Your task to perform on an android device: Clear the shopping cart on ebay. Add logitech g502 to the cart on ebay, then select checkout. Image 0: 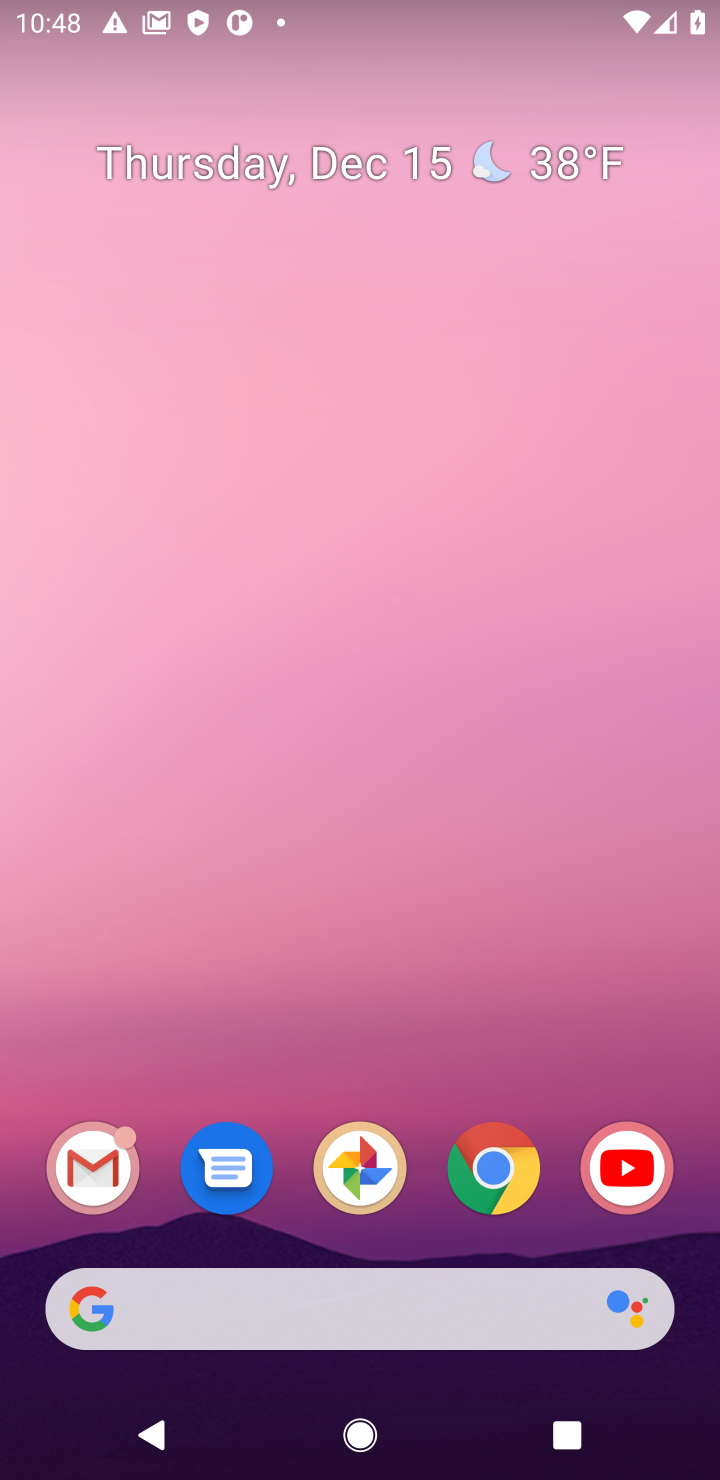
Step 0: click (491, 1177)
Your task to perform on an android device: Clear the shopping cart on ebay. Add logitech g502 to the cart on ebay, then select checkout. Image 1: 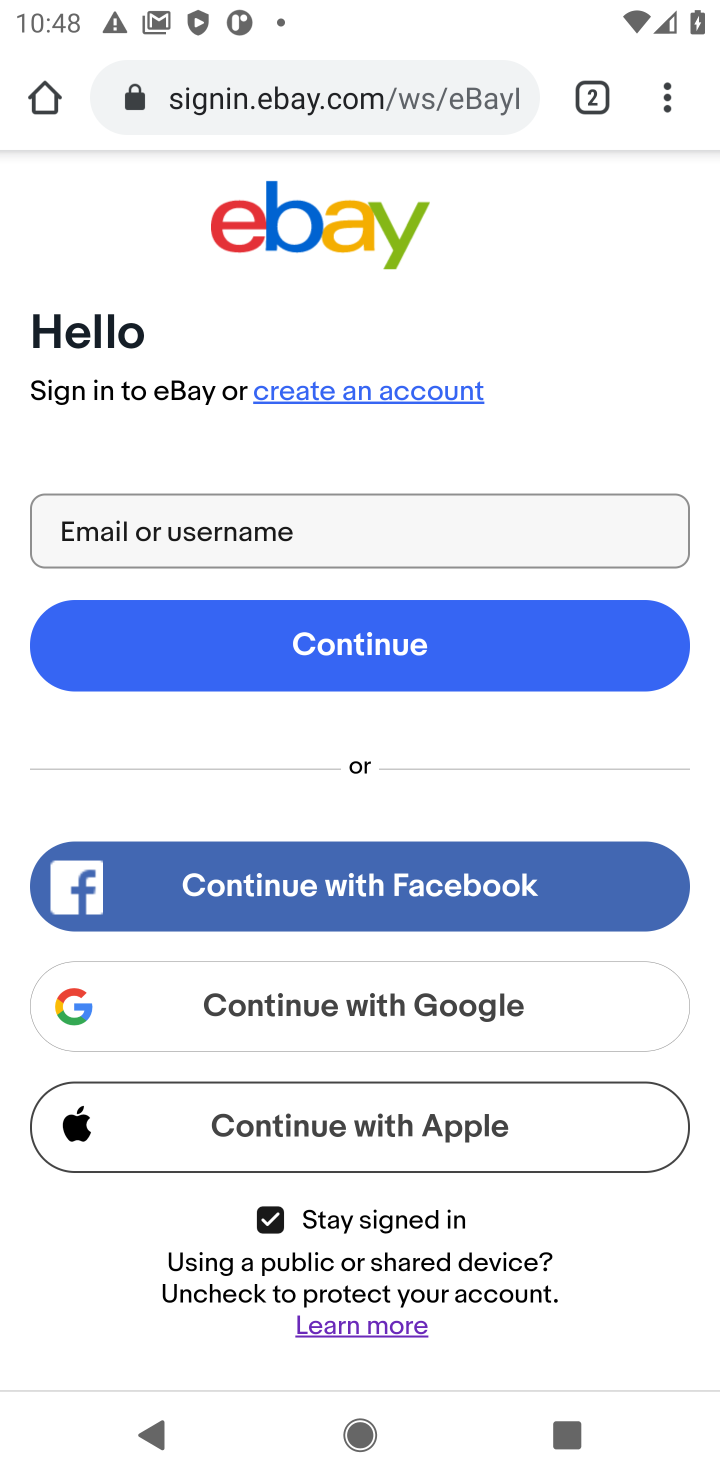
Step 1: click (346, 212)
Your task to perform on an android device: Clear the shopping cart on ebay. Add logitech g502 to the cart on ebay, then select checkout. Image 2: 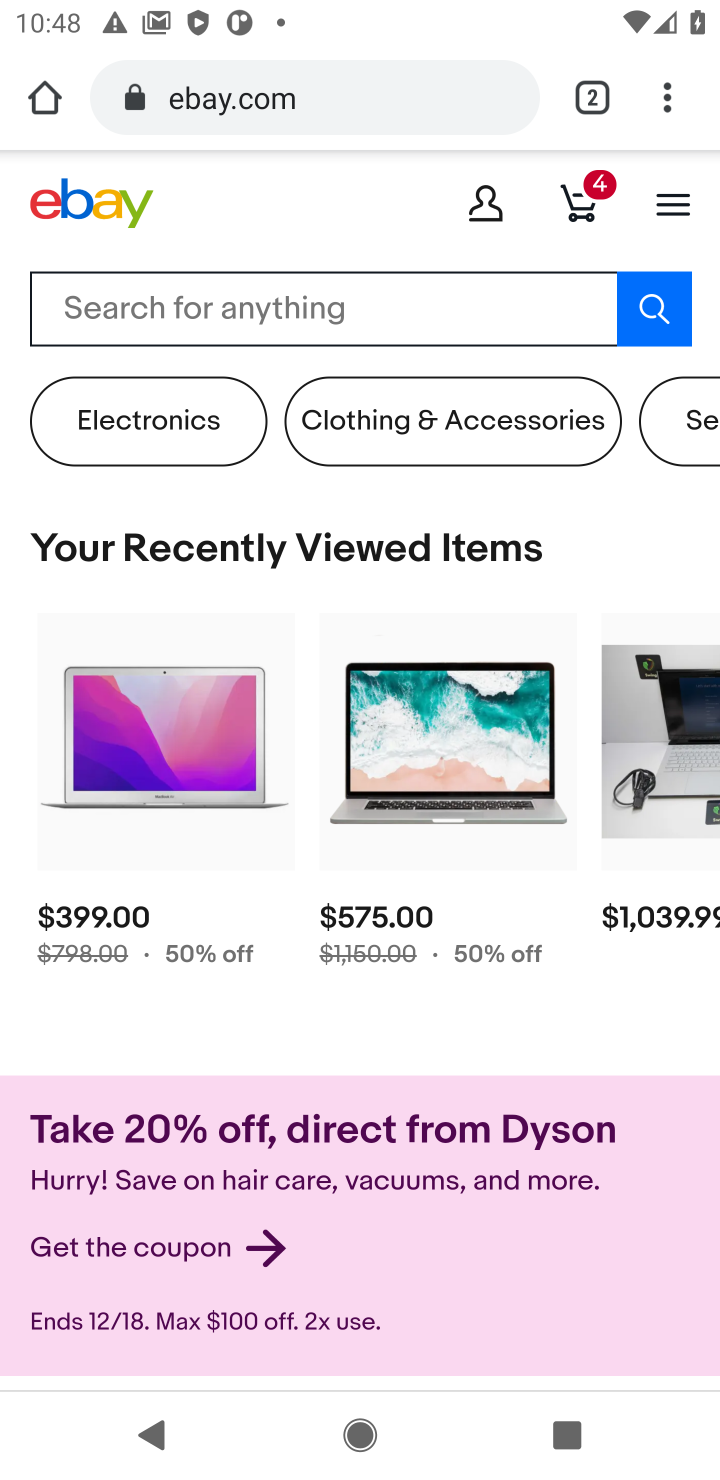
Step 2: click (582, 197)
Your task to perform on an android device: Clear the shopping cart on ebay. Add logitech g502 to the cart on ebay, then select checkout. Image 3: 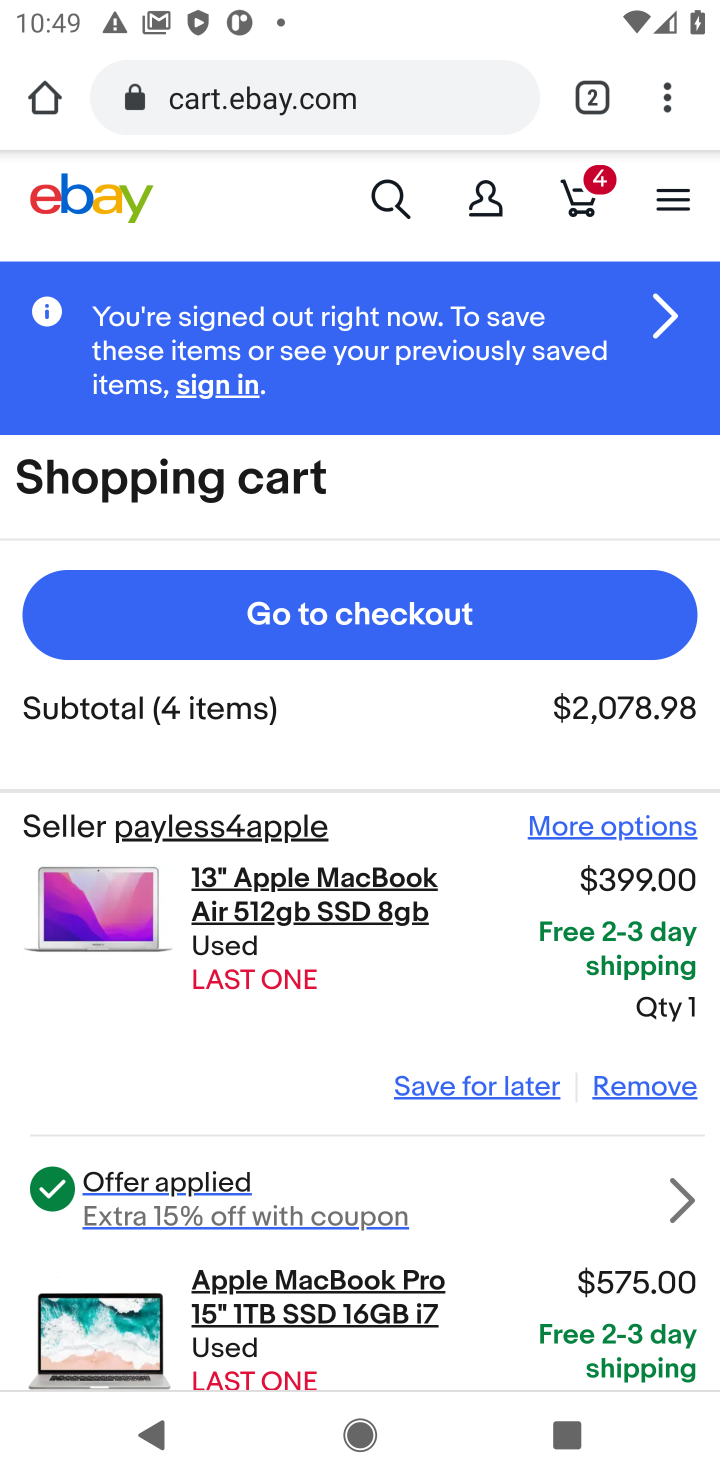
Step 3: click (632, 1088)
Your task to perform on an android device: Clear the shopping cart on ebay. Add logitech g502 to the cart on ebay, then select checkout. Image 4: 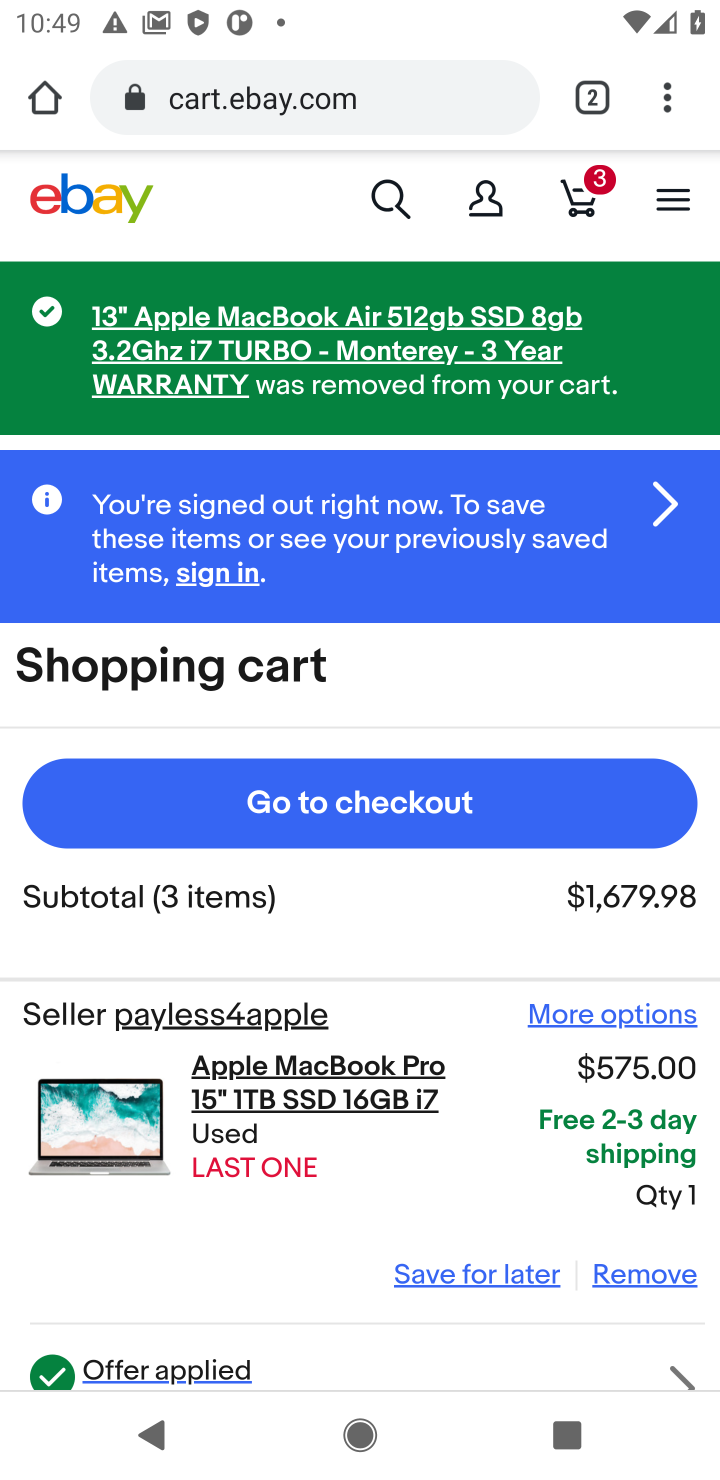
Step 4: click (639, 1270)
Your task to perform on an android device: Clear the shopping cart on ebay. Add logitech g502 to the cart on ebay, then select checkout. Image 5: 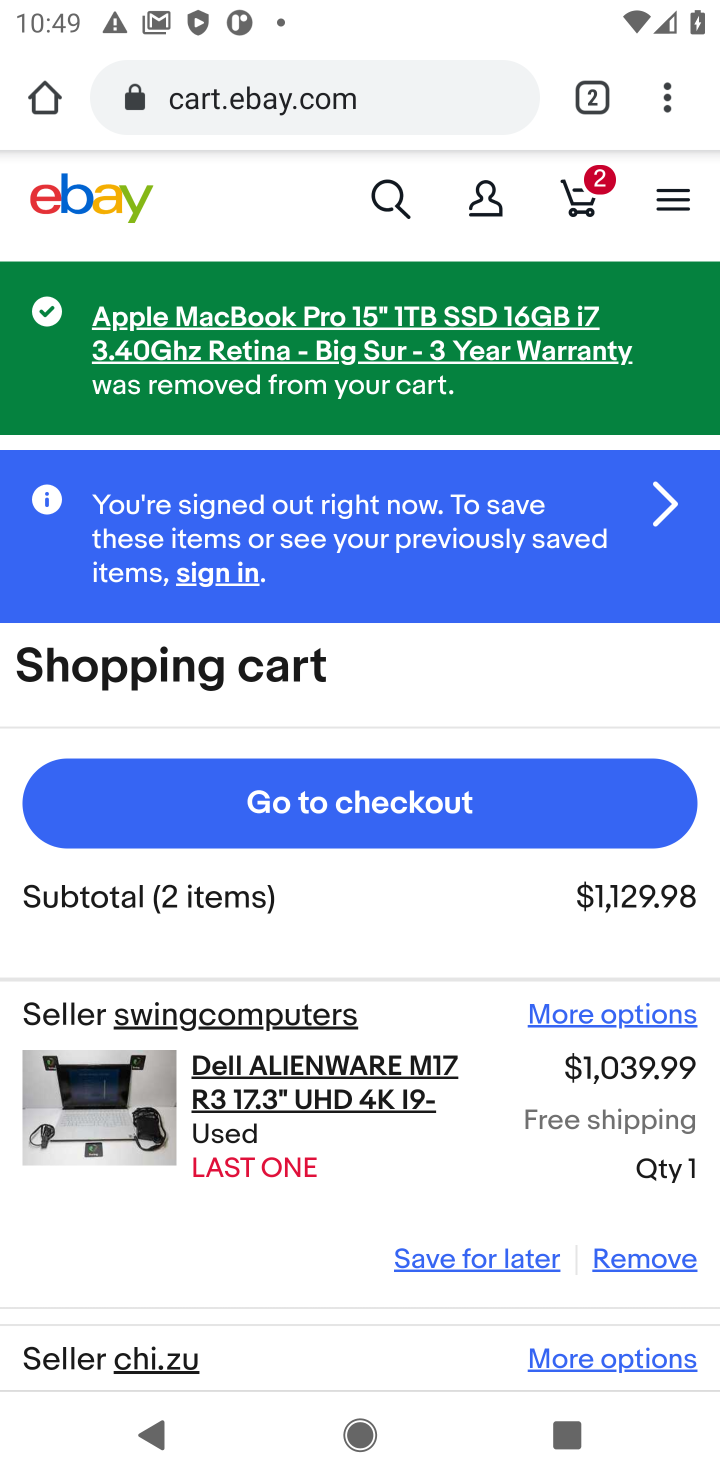
Step 5: click (639, 1270)
Your task to perform on an android device: Clear the shopping cart on ebay. Add logitech g502 to the cart on ebay, then select checkout. Image 6: 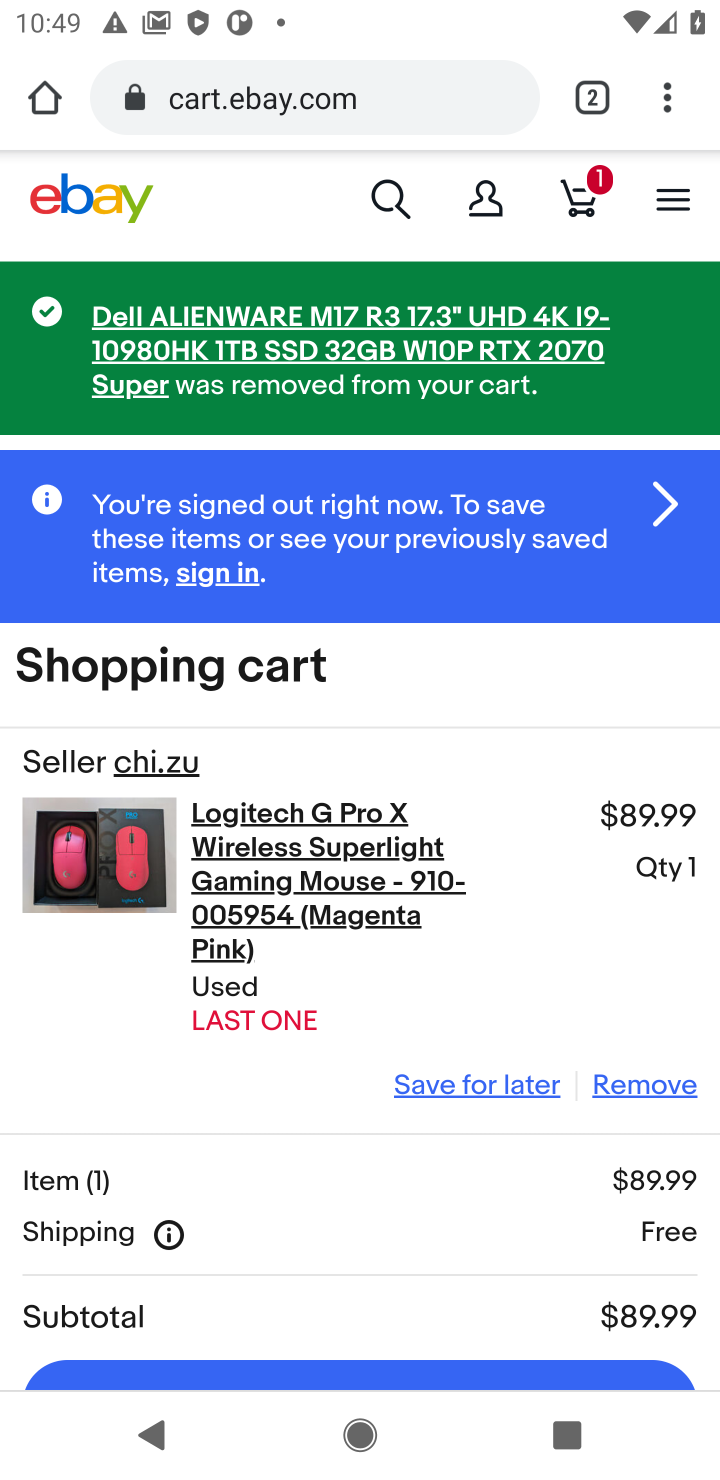
Step 6: click (640, 1088)
Your task to perform on an android device: Clear the shopping cart on ebay. Add logitech g502 to the cart on ebay, then select checkout. Image 7: 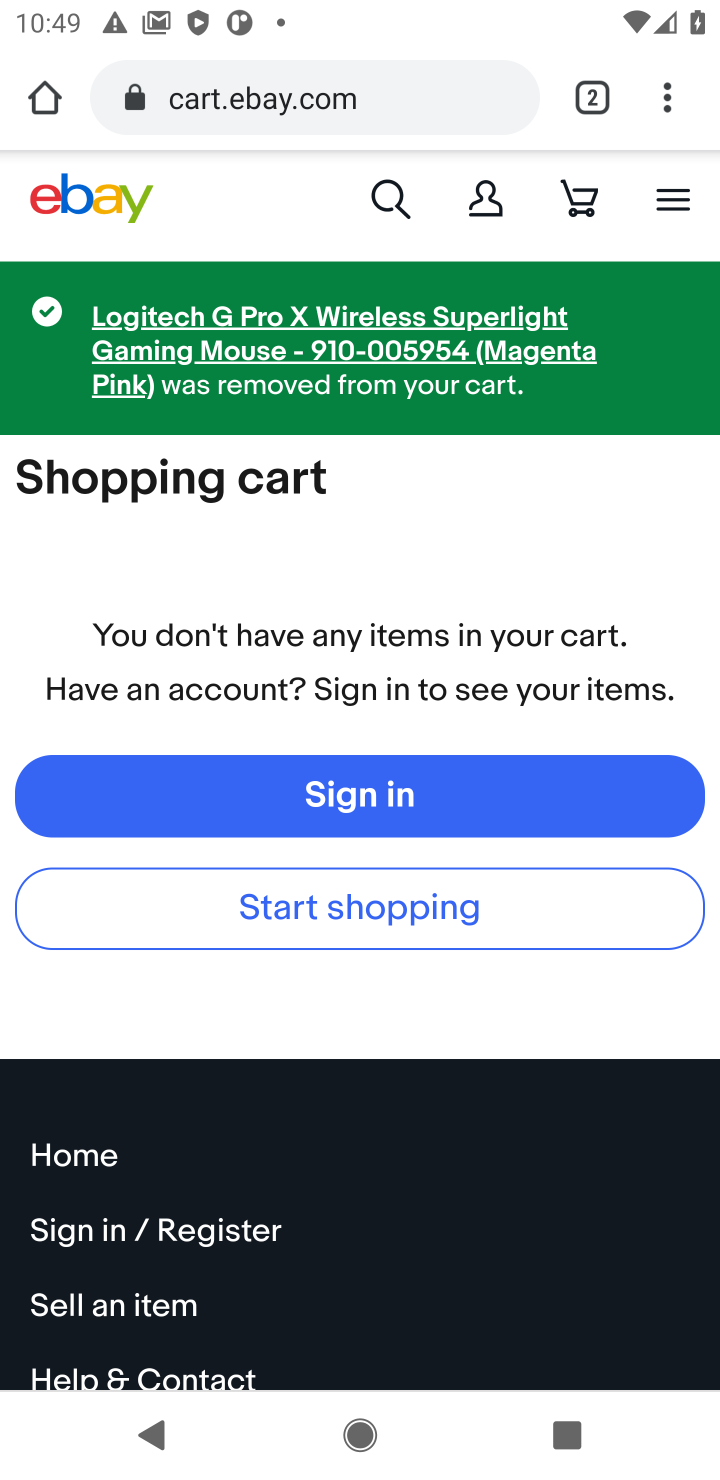
Step 7: click (383, 199)
Your task to perform on an android device: Clear the shopping cart on ebay. Add logitech g502 to the cart on ebay, then select checkout. Image 8: 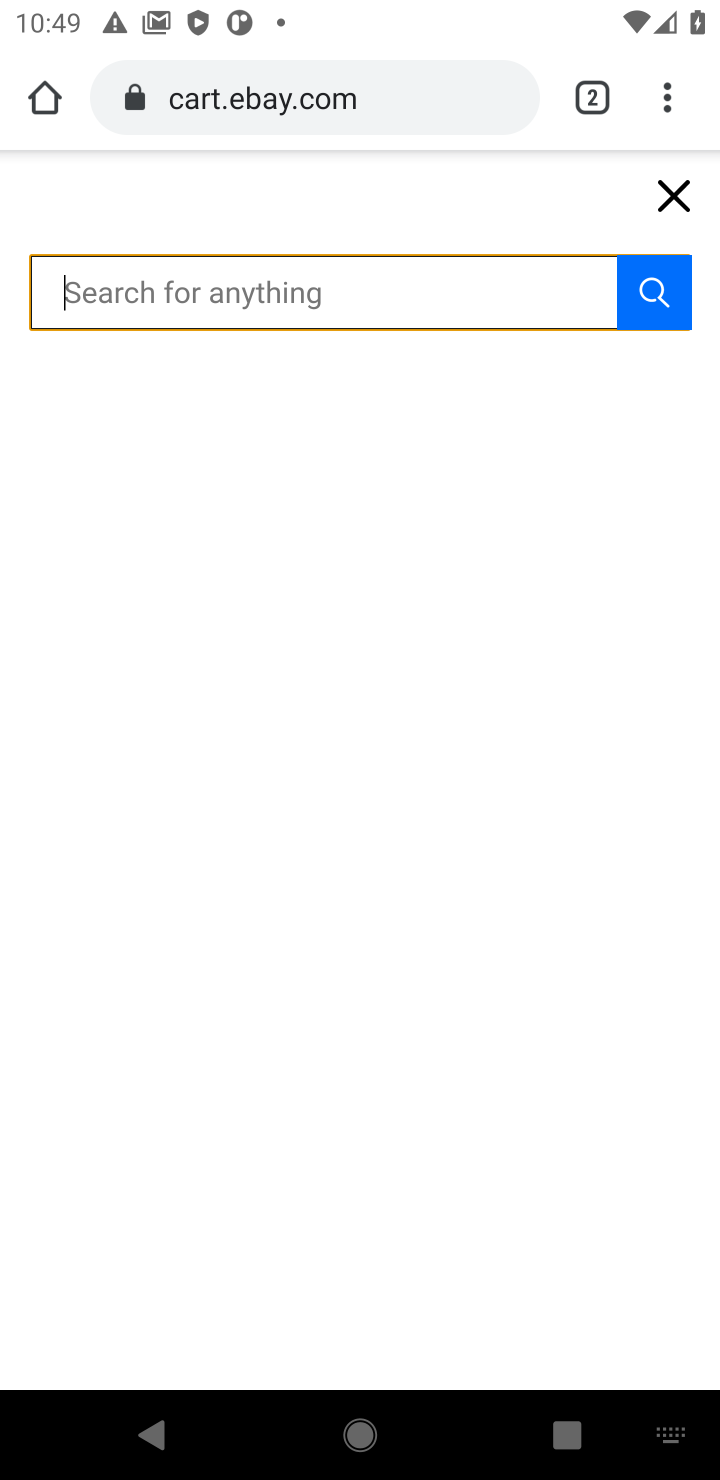
Step 8: type "logitech g502"
Your task to perform on an android device: Clear the shopping cart on ebay. Add logitech g502 to the cart on ebay, then select checkout. Image 9: 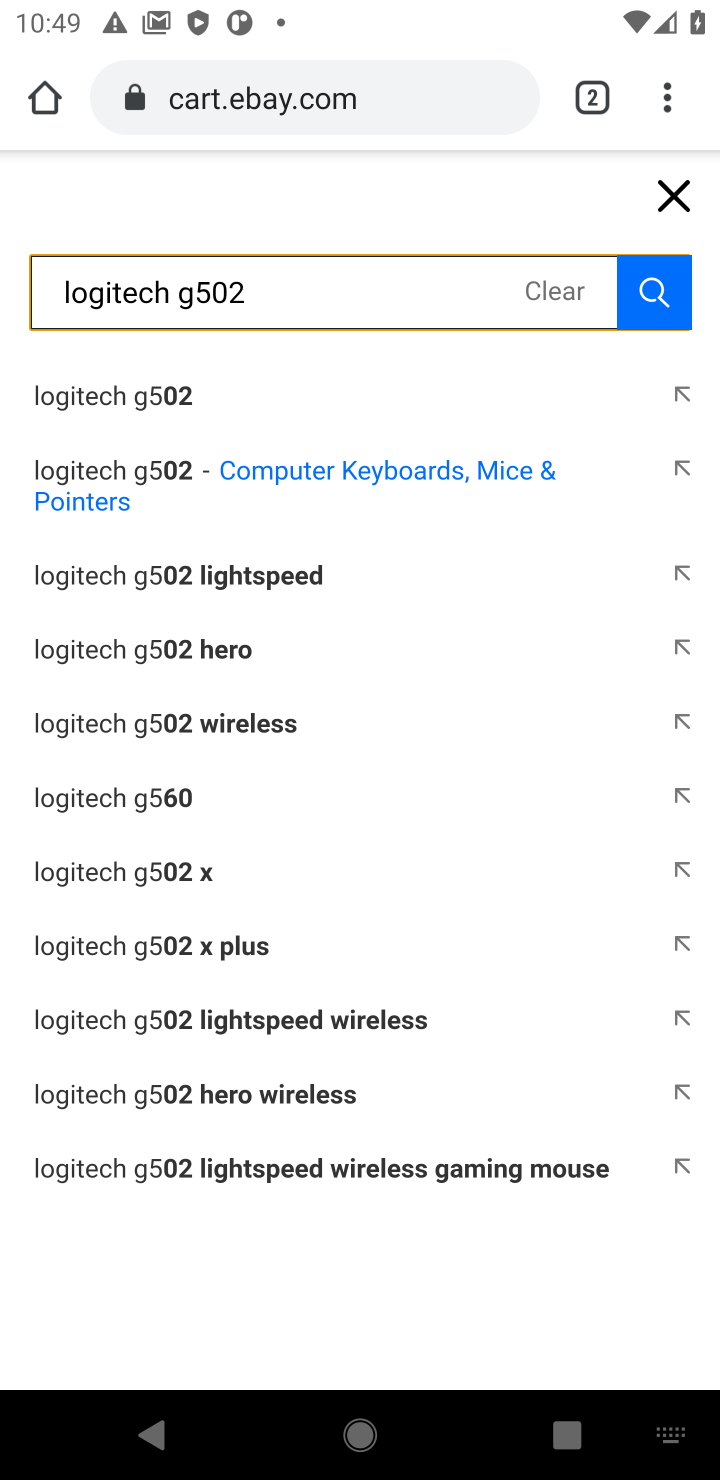
Step 9: click (223, 392)
Your task to perform on an android device: Clear the shopping cart on ebay. Add logitech g502 to the cart on ebay, then select checkout. Image 10: 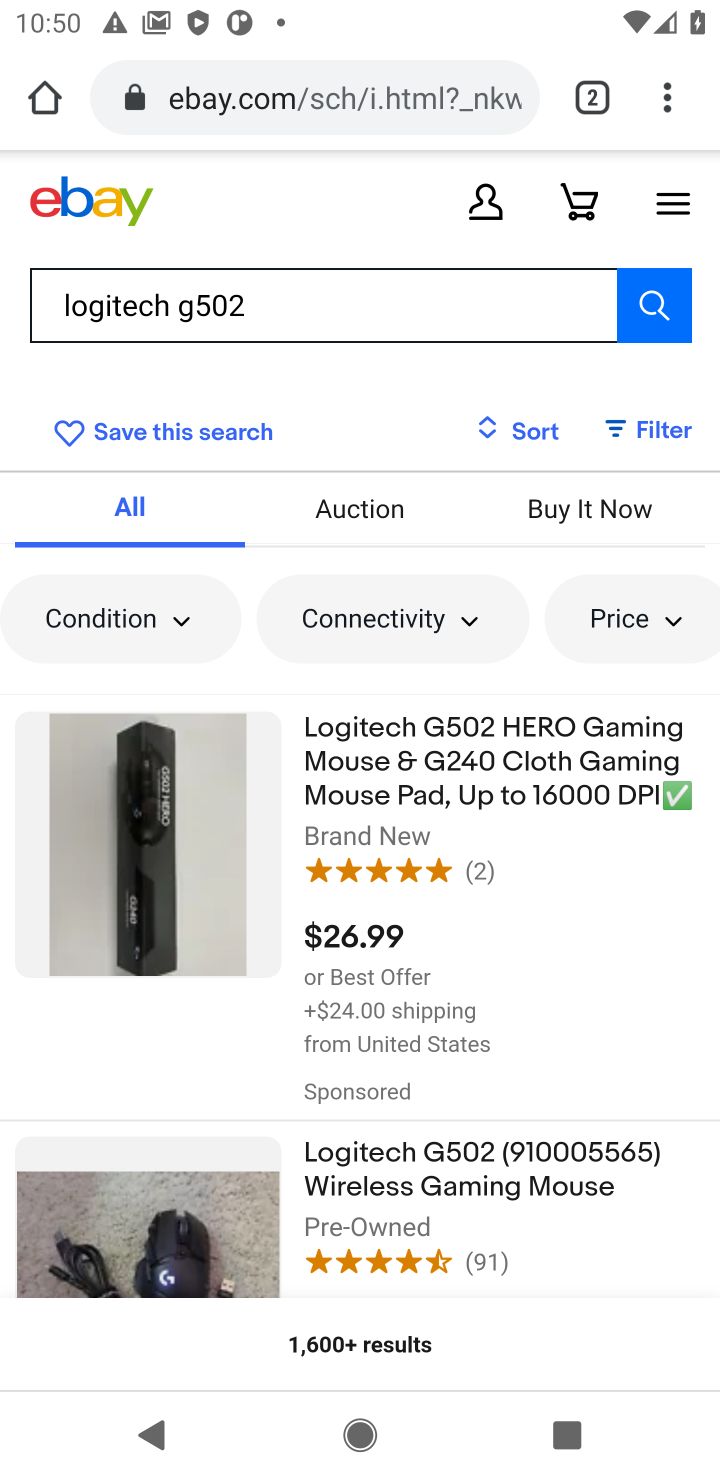
Step 10: click (486, 742)
Your task to perform on an android device: Clear the shopping cart on ebay. Add logitech g502 to the cart on ebay, then select checkout. Image 11: 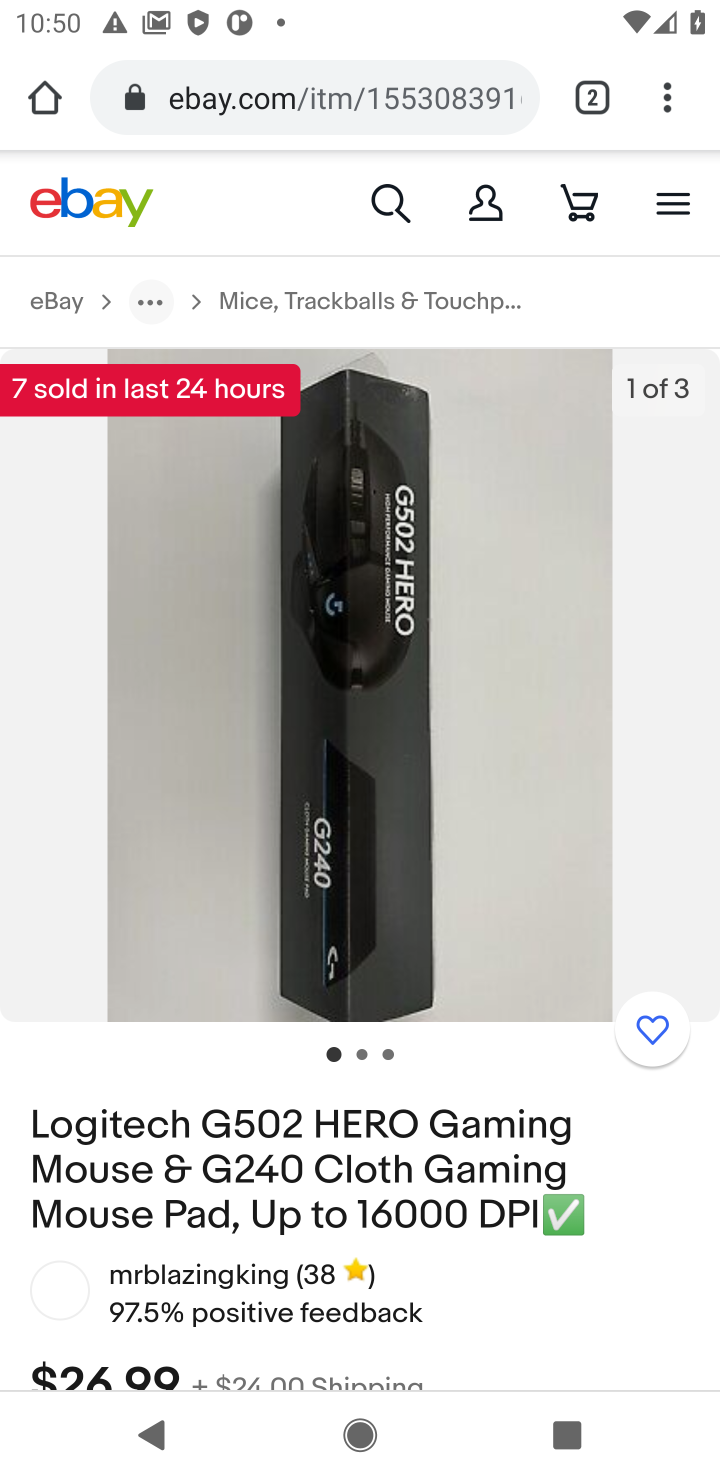
Step 11: drag from (452, 1257) to (383, 253)
Your task to perform on an android device: Clear the shopping cart on ebay. Add logitech g502 to the cart on ebay, then select checkout. Image 12: 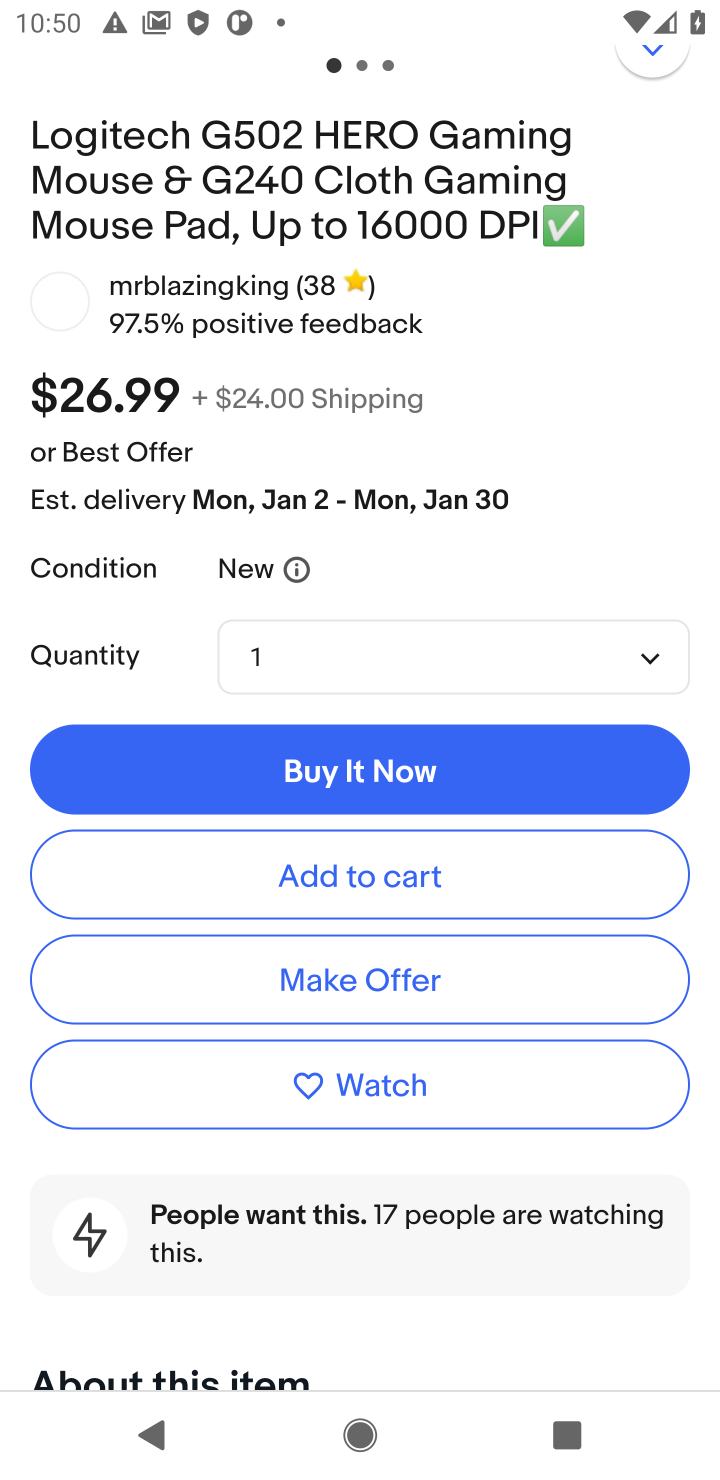
Step 12: click (382, 871)
Your task to perform on an android device: Clear the shopping cart on ebay. Add logitech g502 to the cart on ebay, then select checkout. Image 13: 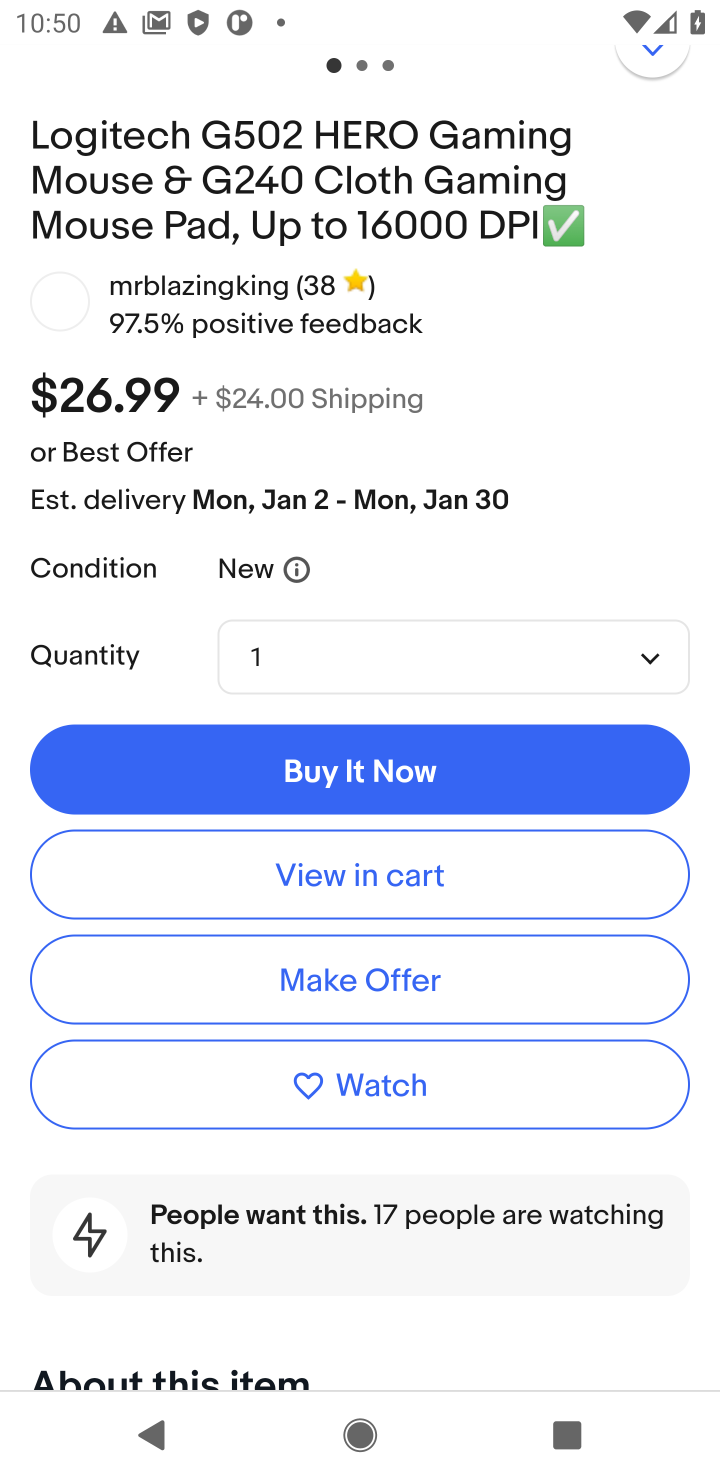
Step 13: click (382, 871)
Your task to perform on an android device: Clear the shopping cart on ebay. Add logitech g502 to the cart on ebay, then select checkout. Image 14: 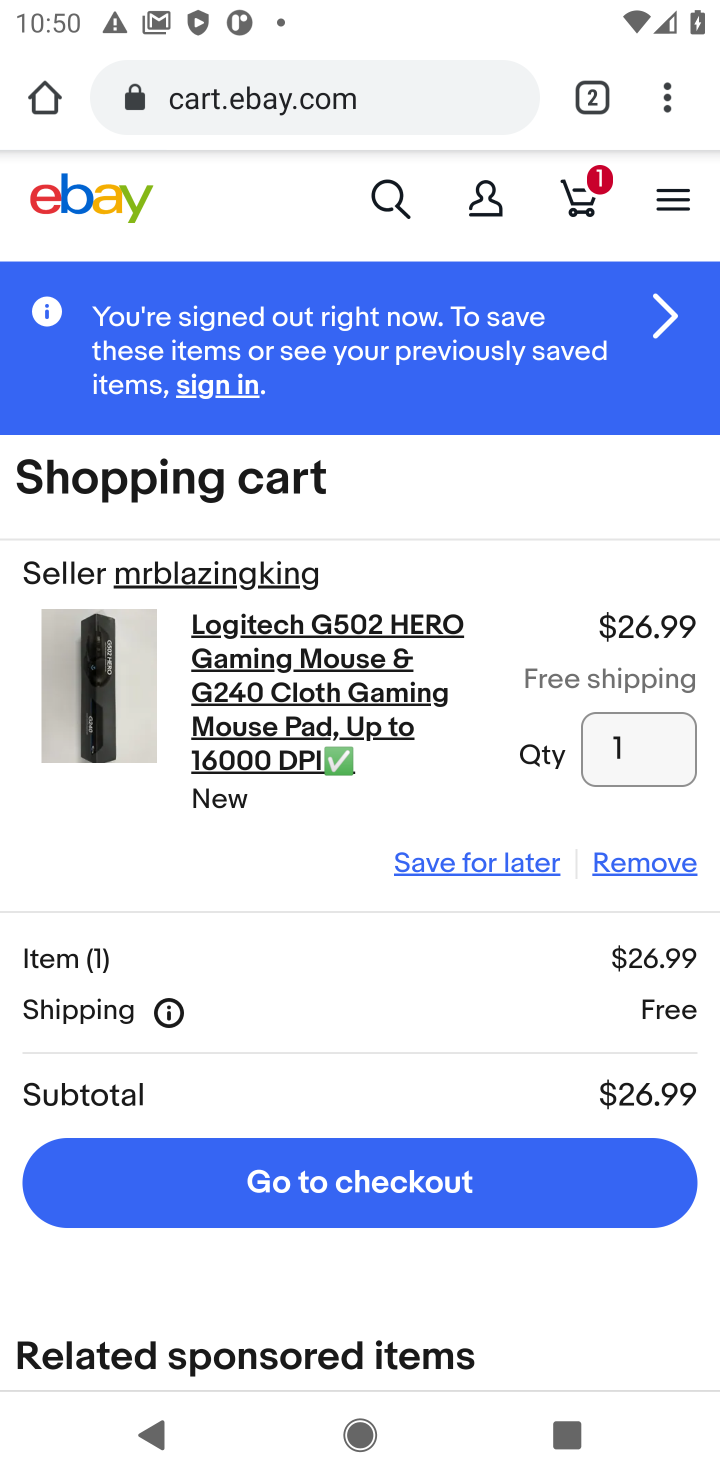
Step 14: click (371, 1177)
Your task to perform on an android device: Clear the shopping cart on ebay. Add logitech g502 to the cart on ebay, then select checkout. Image 15: 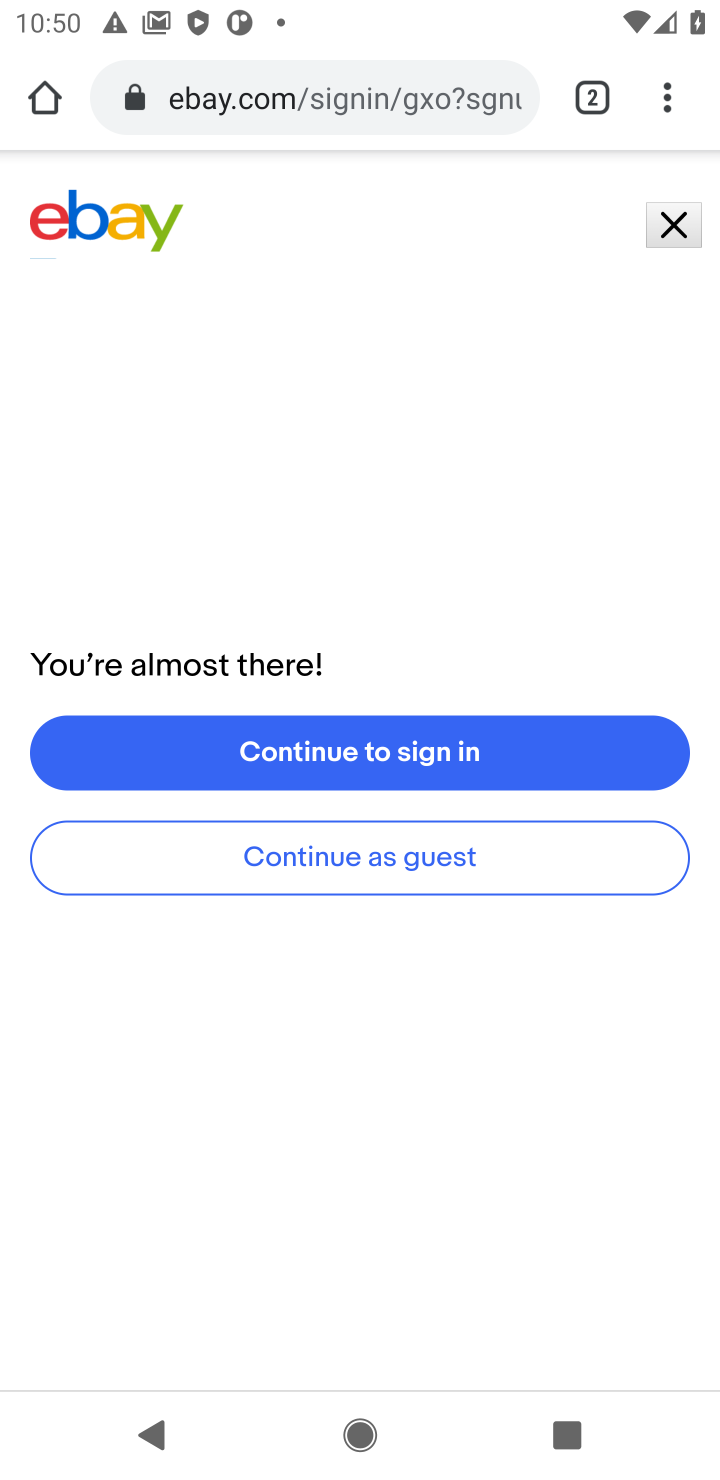
Step 15: task complete